Your task to perform on an android device: turn on airplane mode Image 0: 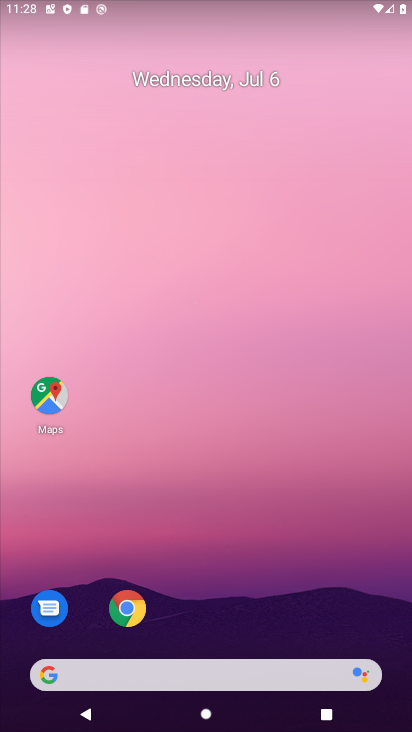
Step 0: drag from (165, 658) to (162, 82)
Your task to perform on an android device: turn on airplane mode Image 1: 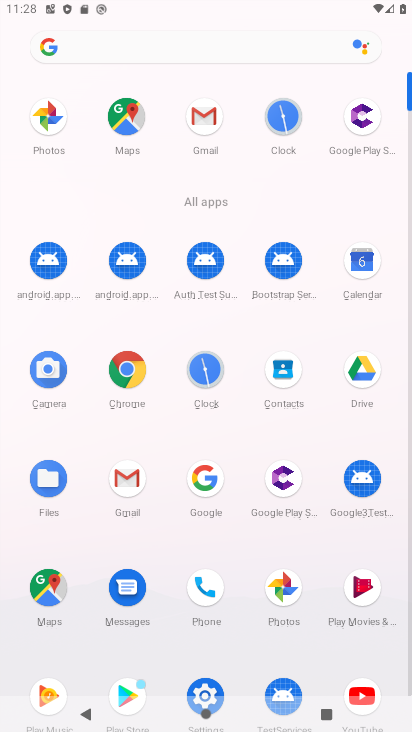
Step 1: click (193, 692)
Your task to perform on an android device: turn on airplane mode Image 2: 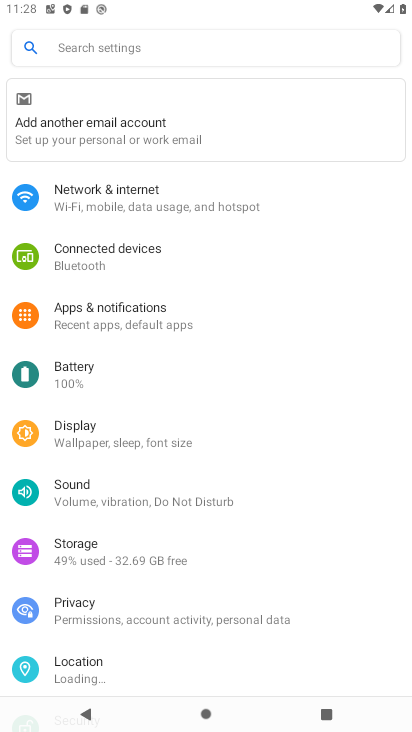
Step 2: click (146, 200)
Your task to perform on an android device: turn on airplane mode Image 3: 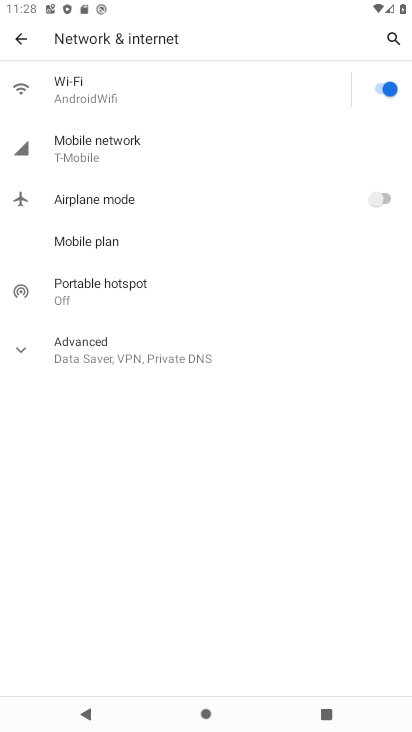
Step 3: click (382, 198)
Your task to perform on an android device: turn on airplane mode Image 4: 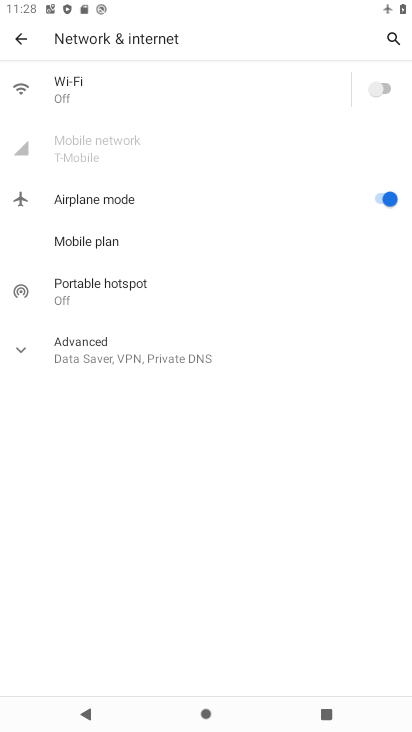
Step 4: task complete